Your task to perform on an android device: allow notifications from all sites in the chrome app Image 0: 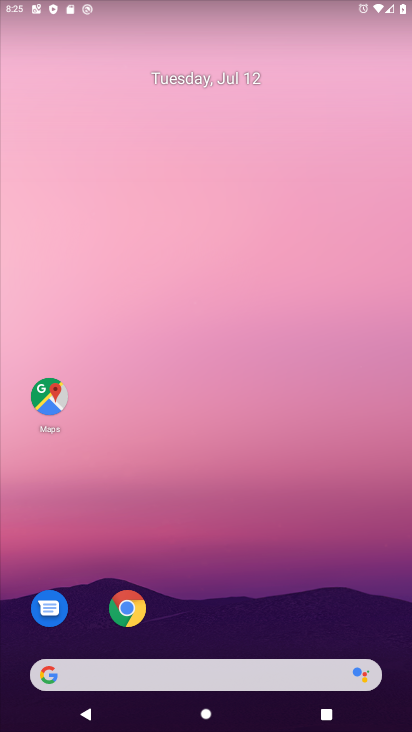
Step 0: click (126, 610)
Your task to perform on an android device: allow notifications from all sites in the chrome app Image 1: 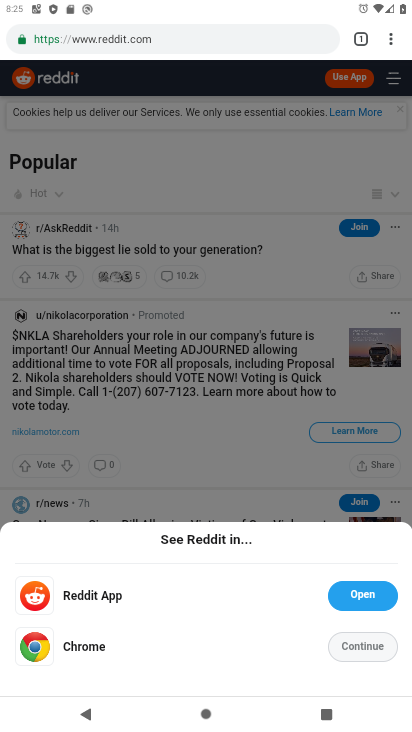
Step 1: click (395, 31)
Your task to perform on an android device: allow notifications from all sites in the chrome app Image 2: 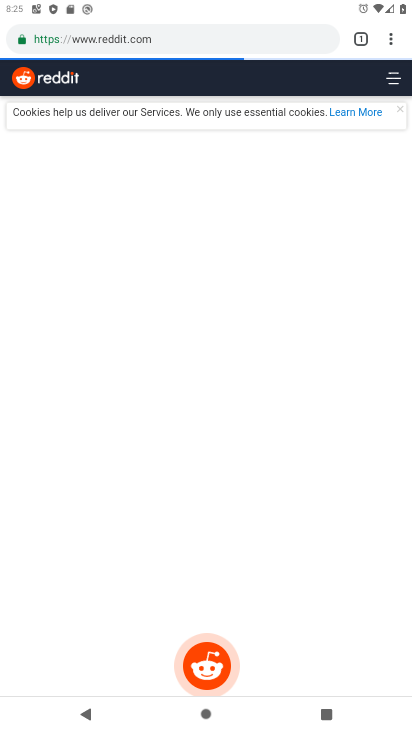
Step 2: click (395, 31)
Your task to perform on an android device: allow notifications from all sites in the chrome app Image 3: 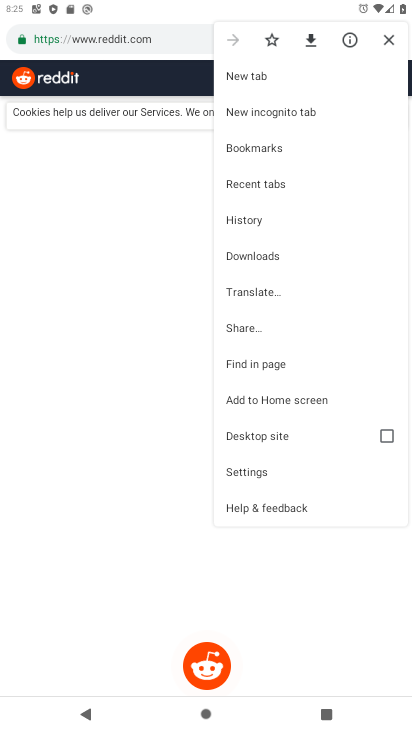
Step 3: click (226, 470)
Your task to perform on an android device: allow notifications from all sites in the chrome app Image 4: 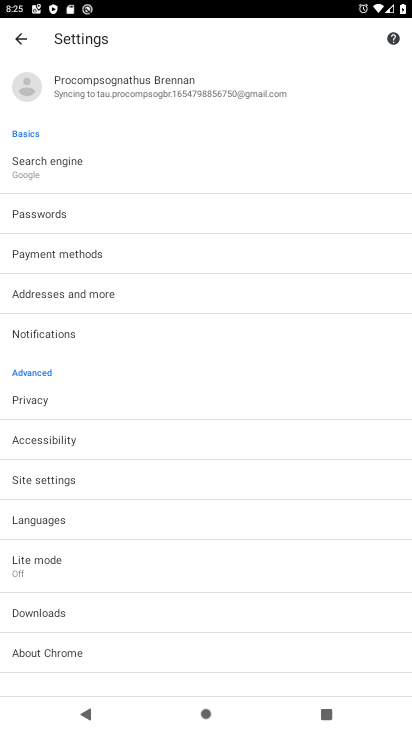
Step 4: click (59, 336)
Your task to perform on an android device: allow notifications from all sites in the chrome app Image 5: 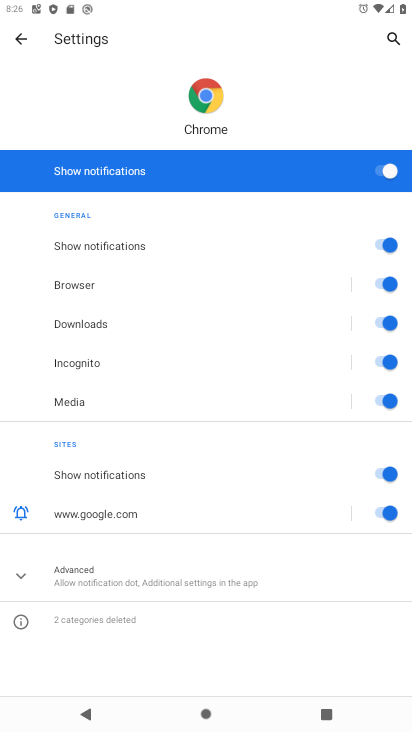
Step 5: task complete